Your task to perform on an android device: Open Google Chrome and click the shortcut for Amazon.com Image 0: 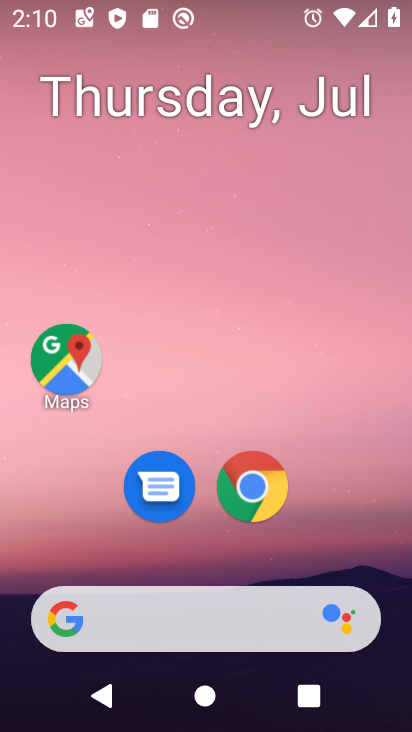
Step 0: click (244, 478)
Your task to perform on an android device: Open Google Chrome and click the shortcut for Amazon.com Image 1: 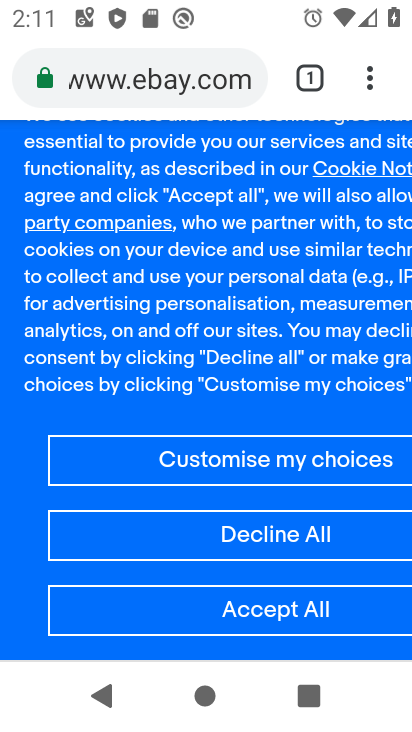
Step 1: drag from (363, 68) to (178, 292)
Your task to perform on an android device: Open Google Chrome and click the shortcut for Amazon.com Image 2: 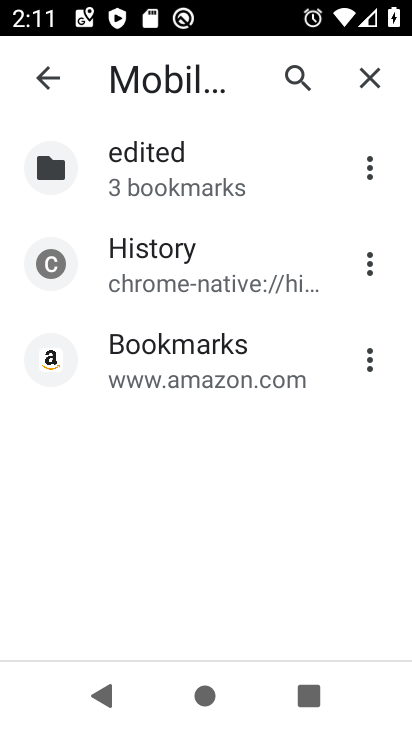
Step 2: click (49, 67)
Your task to perform on an android device: Open Google Chrome and click the shortcut for Amazon.com Image 3: 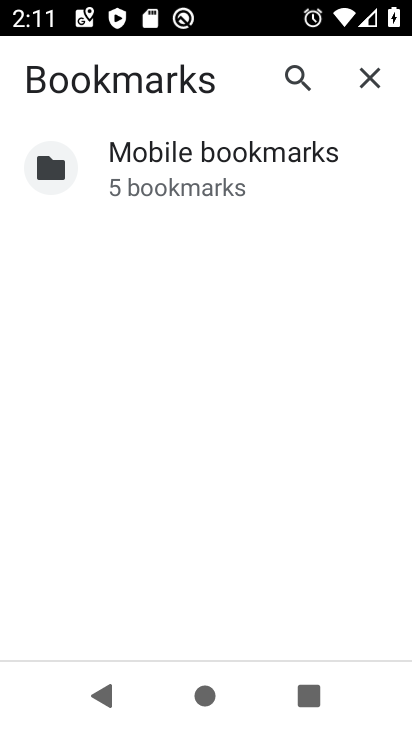
Step 3: press back button
Your task to perform on an android device: Open Google Chrome and click the shortcut for Amazon.com Image 4: 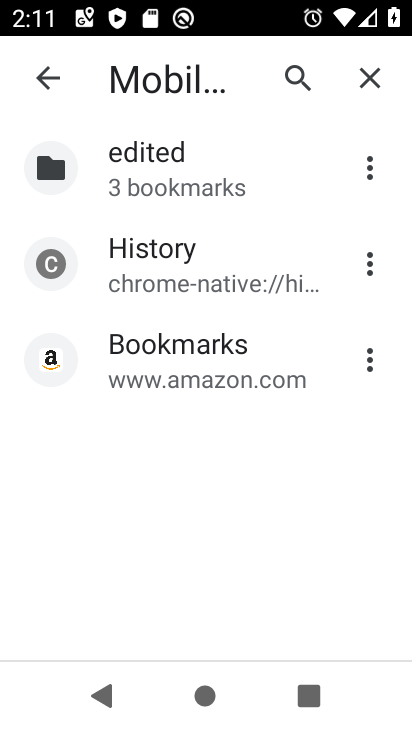
Step 4: press back button
Your task to perform on an android device: Open Google Chrome and click the shortcut for Amazon.com Image 5: 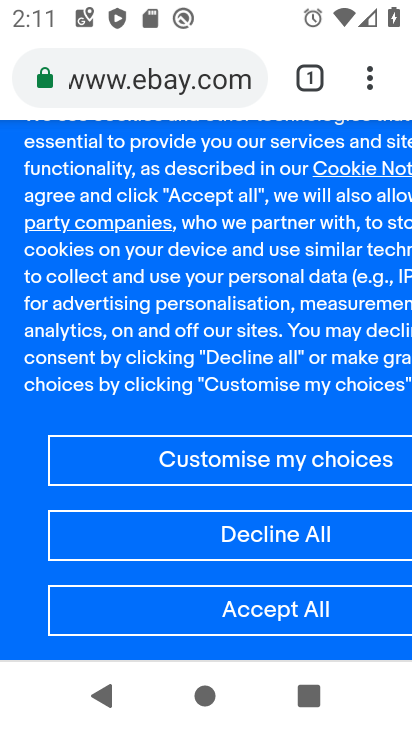
Step 5: click (305, 76)
Your task to perform on an android device: Open Google Chrome and click the shortcut for Amazon.com Image 6: 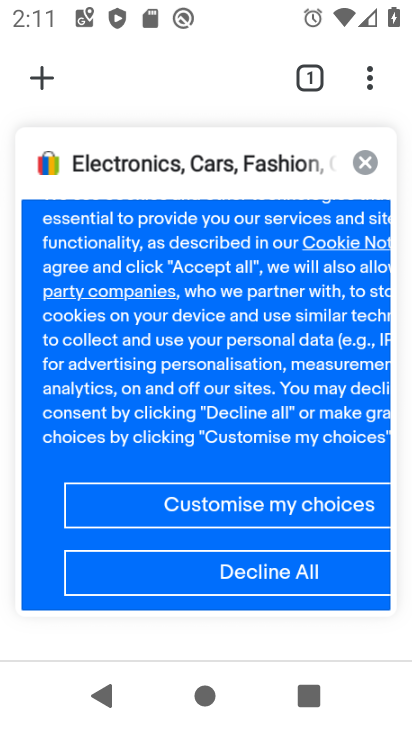
Step 6: click (44, 74)
Your task to perform on an android device: Open Google Chrome and click the shortcut for Amazon.com Image 7: 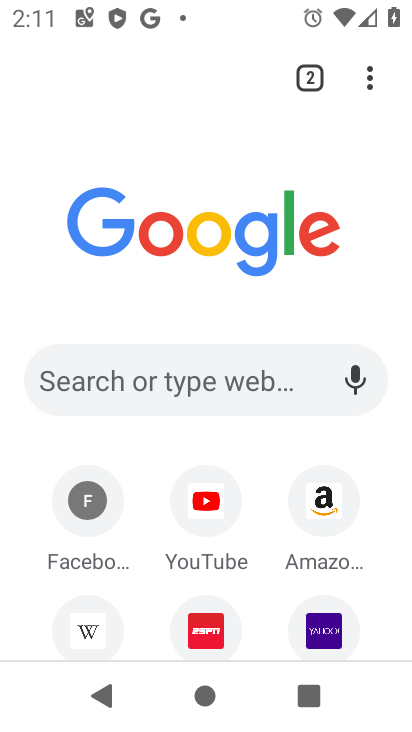
Step 7: click (310, 506)
Your task to perform on an android device: Open Google Chrome and click the shortcut for Amazon.com Image 8: 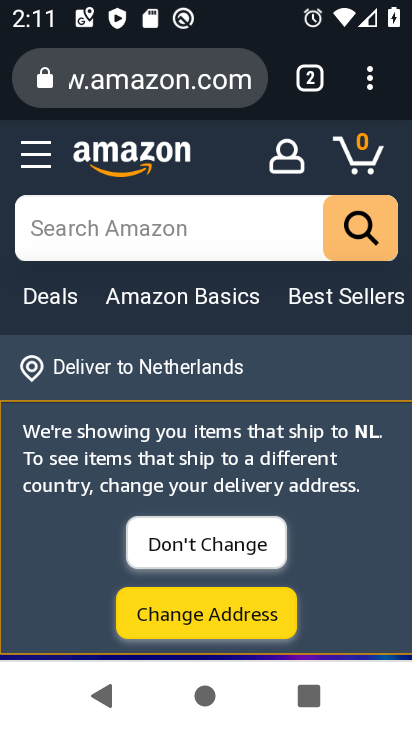
Step 8: task complete